Your task to perform on an android device: open chrome privacy settings Image 0: 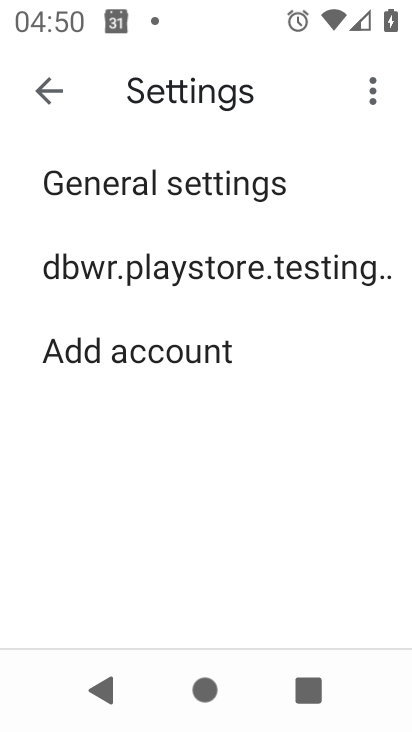
Step 0: press home button
Your task to perform on an android device: open chrome privacy settings Image 1: 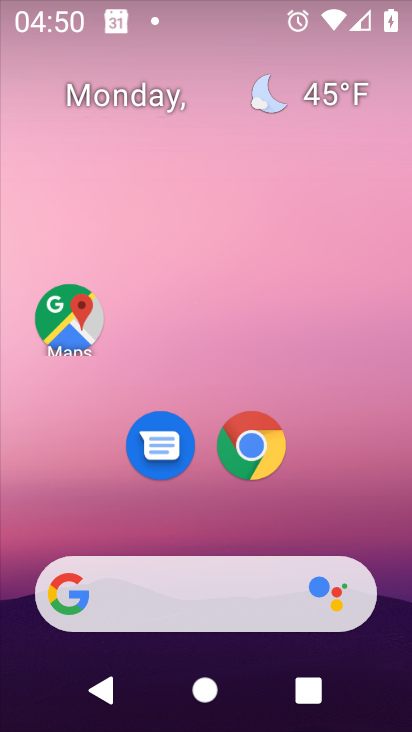
Step 1: click (241, 451)
Your task to perform on an android device: open chrome privacy settings Image 2: 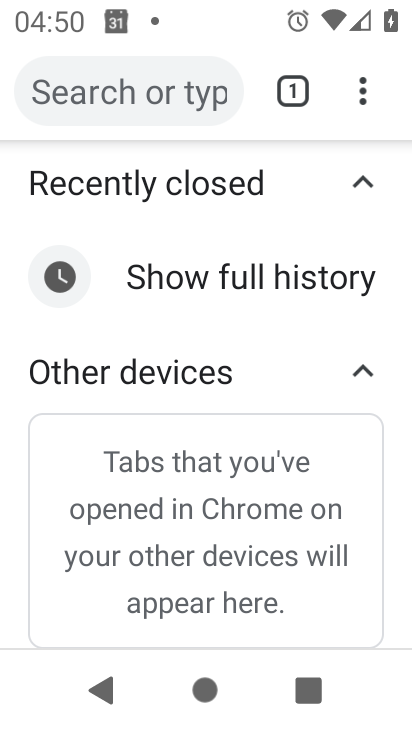
Step 2: click (350, 98)
Your task to perform on an android device: open chrome privacy settings Image 3: 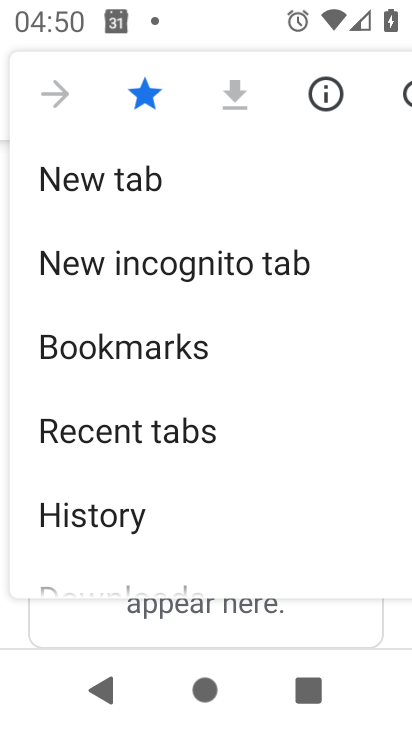
Step 3: drag from (248, 429) to (219, 71)
Your task to perform on an android device: open chrome privacy settings Image 4: 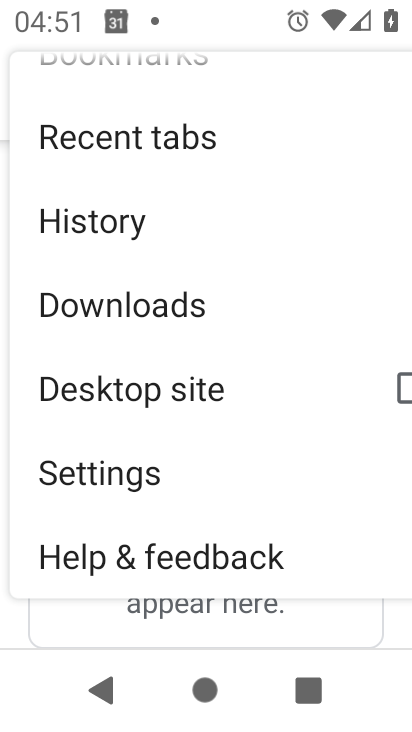
Step 4: click (158, 480)
Your task to perform on an android device: open chrome privacy settings Image 5: 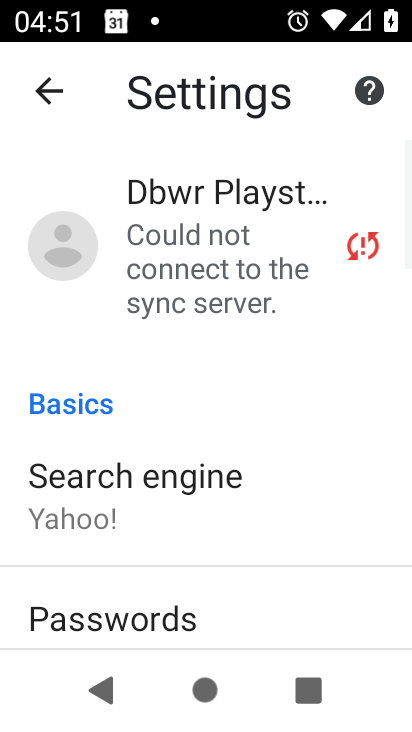
Step 5: drag from (171, 566) to (146, 189)
Your task to perform on an android device: open chrome privacy settings Image 6: 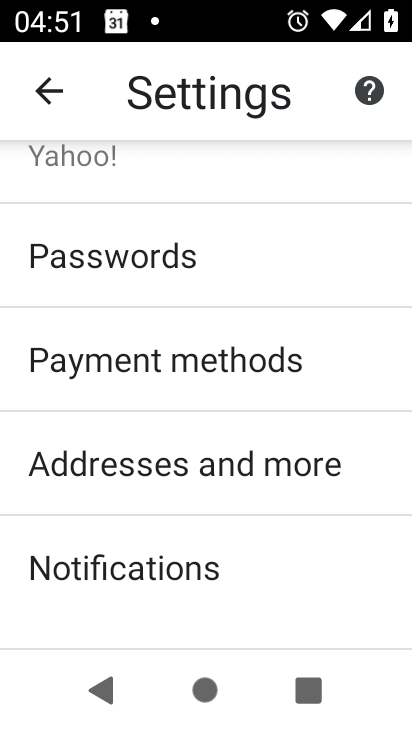
Step 6: drag from (149, 580) to (148, 177)
Your task to perform on an android device: open chrome privacy settings Image 7: 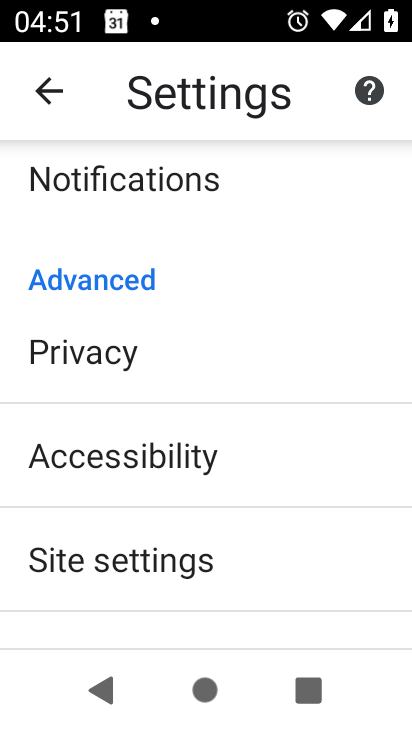
Step 7: click (120, 336)
Your task to perform on an android device: open chrome privacy settings Image 8: 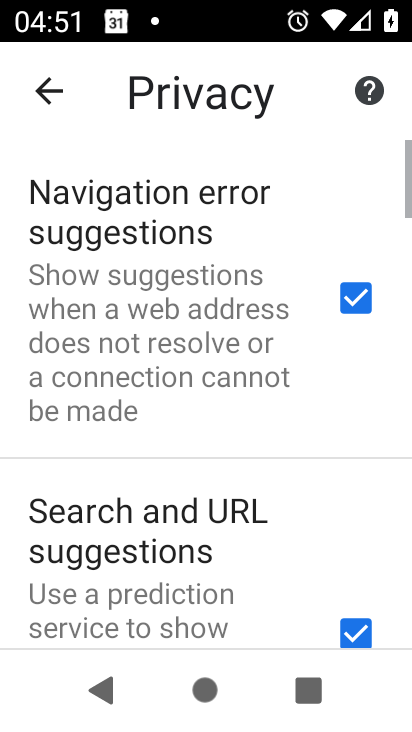
Step 8: task complete